Your task to perform on an android device: install app "Pluto TV - Live TV and Movies" Image 0: 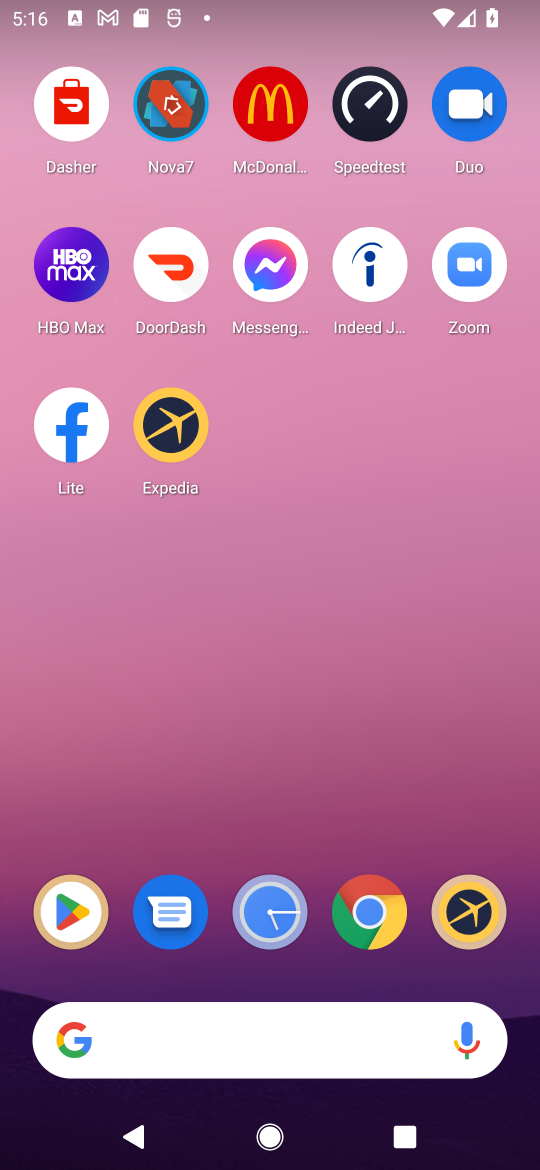
Step 0: press home button
Your task to perform on an android device: install app "Pluto TV - Live TV and Movies" Image 1: 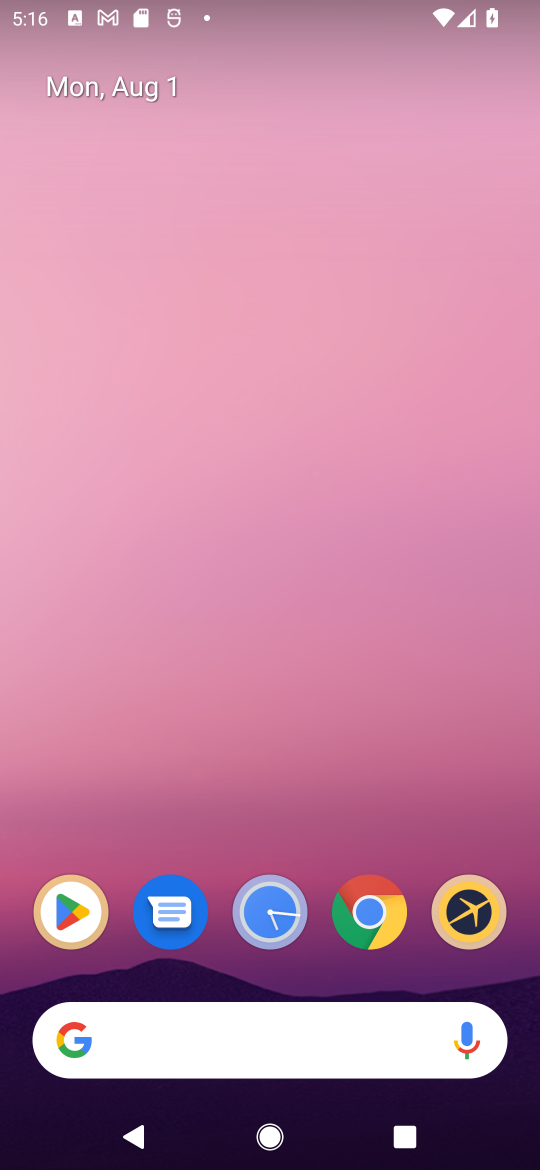
Step 1: click (49, 904)
Your task to perform on an android device: install app "Pluto TV - Live TV and Movies" Image 2: 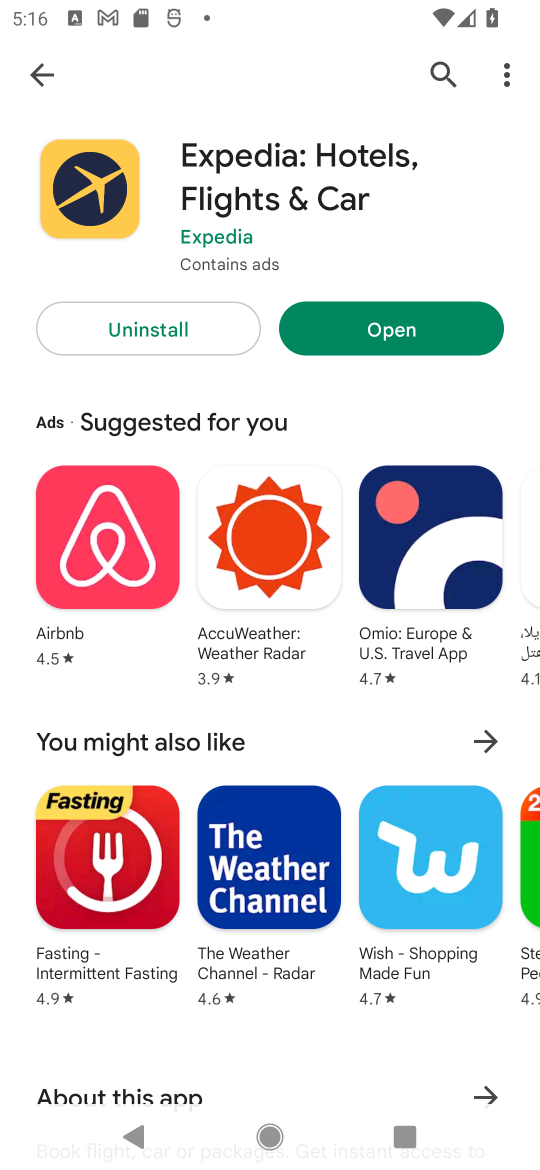
Step 2: click (431, 67)
Your task to perform on an android device: install app "Pluto TV - Live TV and Movies" Image 3: 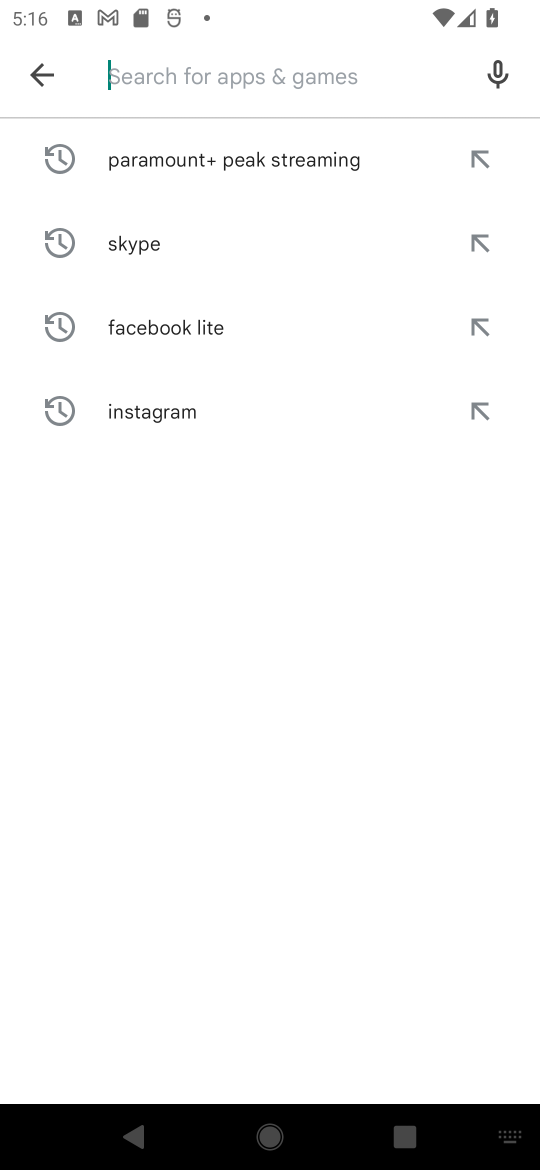
Step 3: click (239, 85)
Your task to perform on an android device: install app "Pluto TV - Live TV and Movies" Image 4: 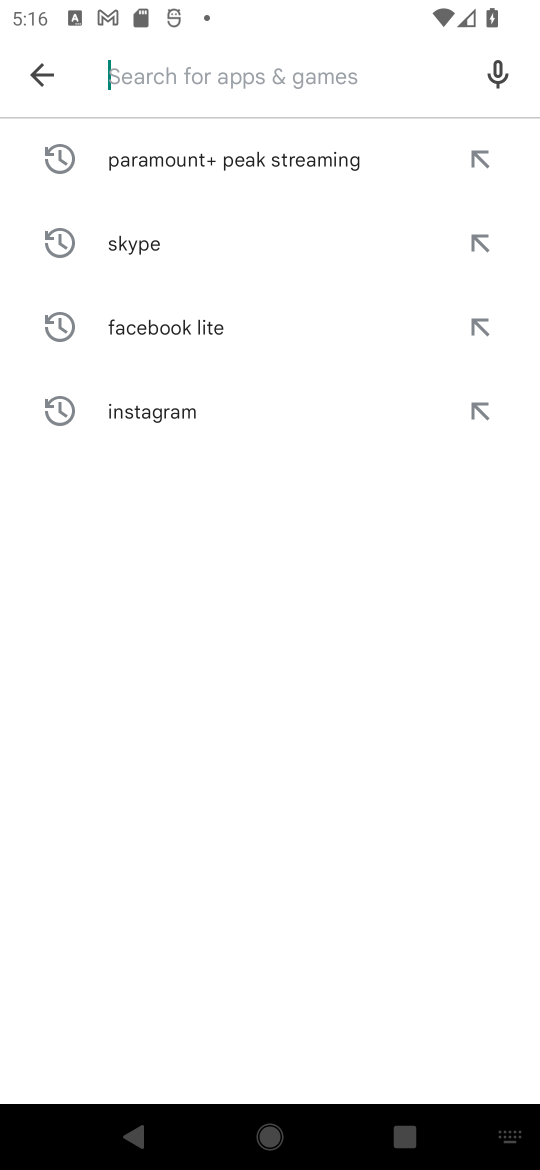
Step 4: type "Pluto TV - Live TV and Movies"
Your task to perform on an android device: install app "Pluto TV - Live TV and Movies" Image 5: 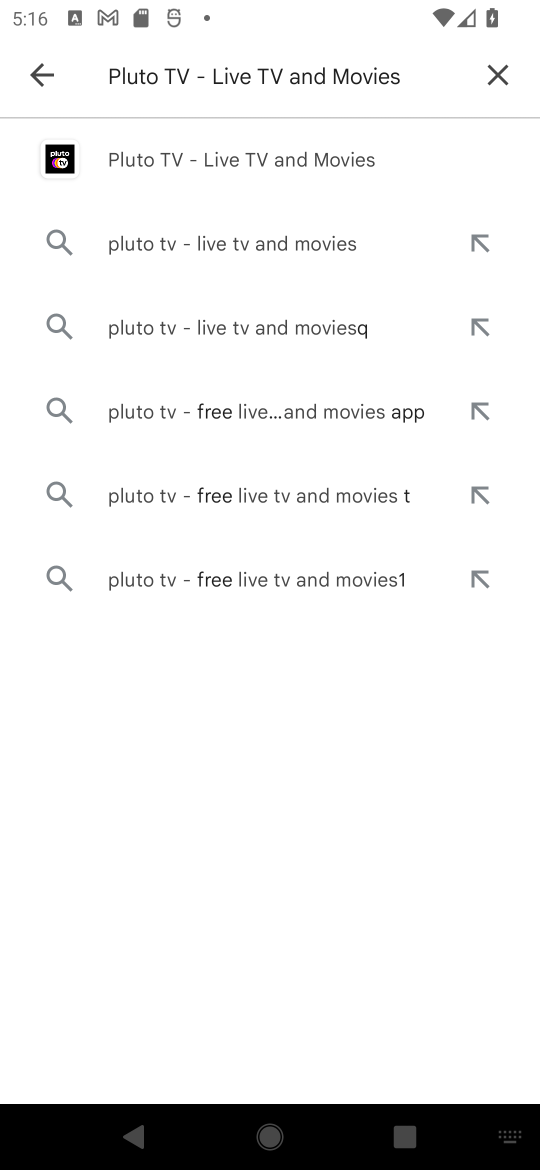
Step 5: click (215, 167)
Your task to perform on an android device: install app "Pluto TV - Live TV and Movies" Image 6: 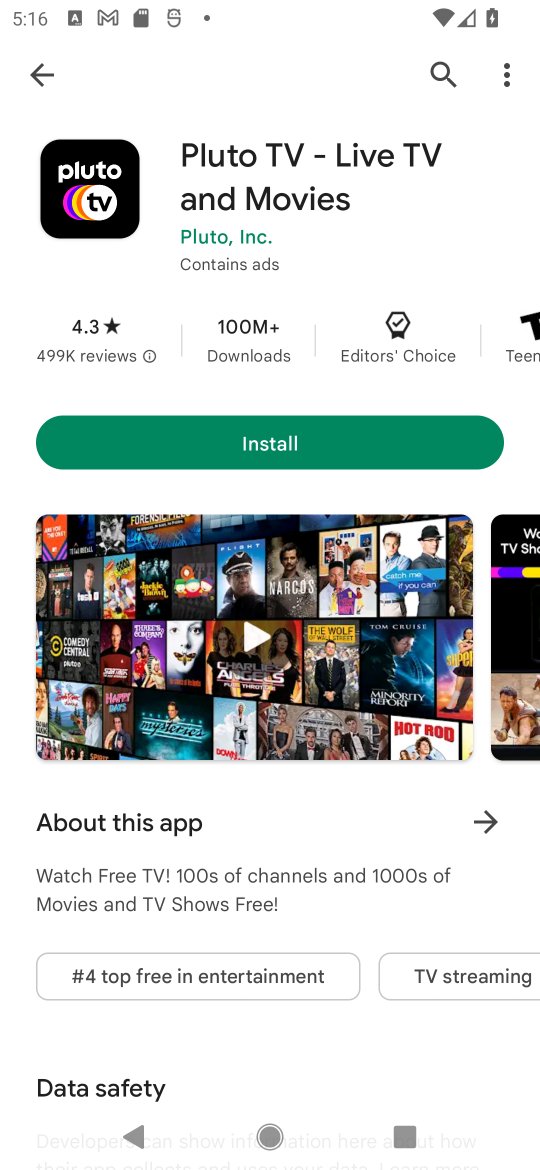
Step 6: click (289, 441)
Your task to perform on an android device: install app "Pluto TV - Live TV and Movies" Image 7: 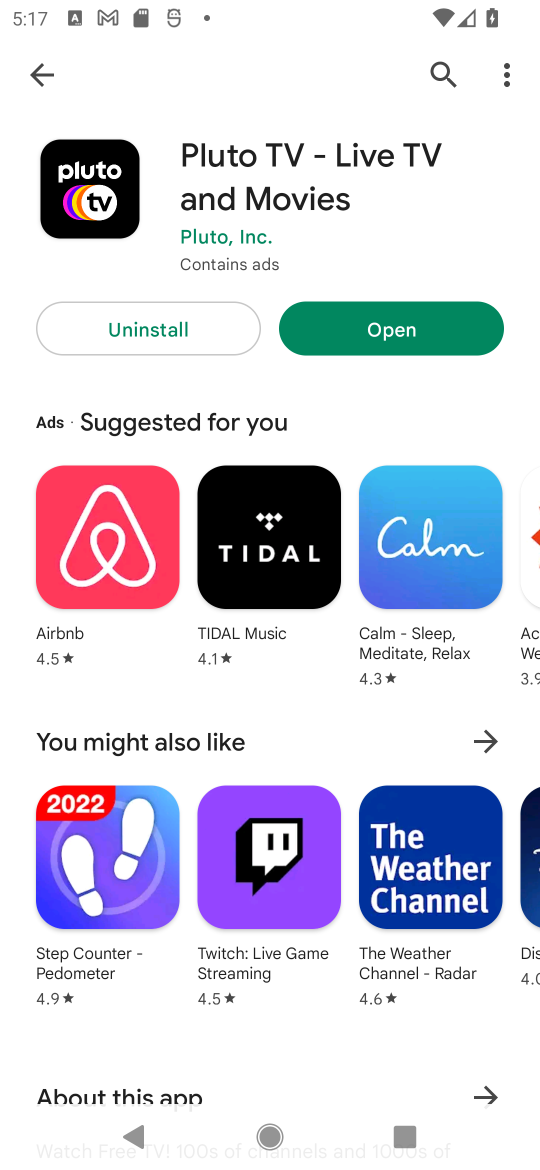
Step 7: task complete